Your task to perform on an android device: change the clock style Image 0: 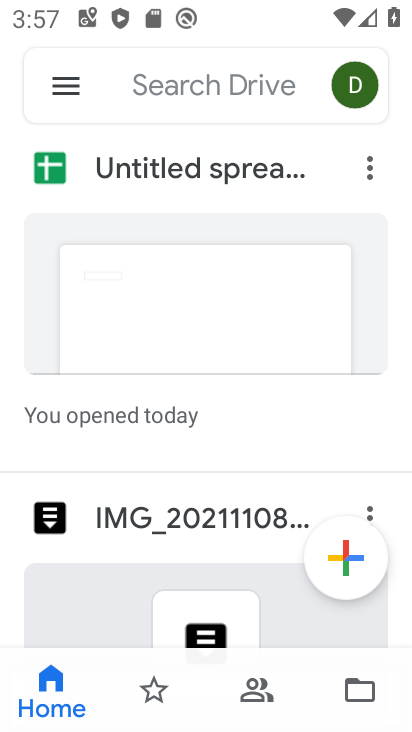
Step 0: press home button
Your task to perform on an android device: change the clock style Image 1: 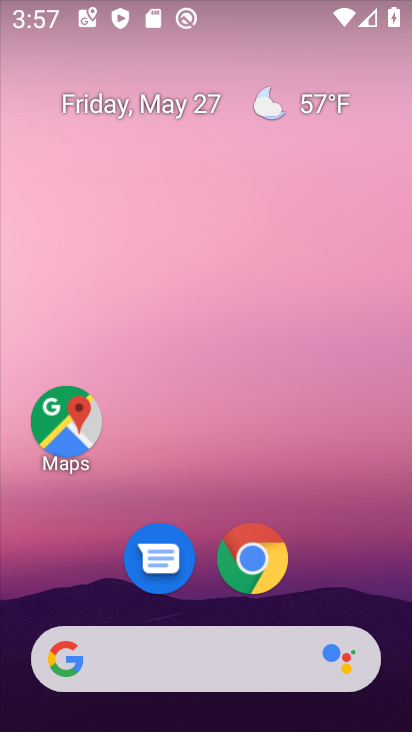
Step 1: drag from (361, 580) to (224, 1)
Your task to perform on an android device: change the clock style Image 2: 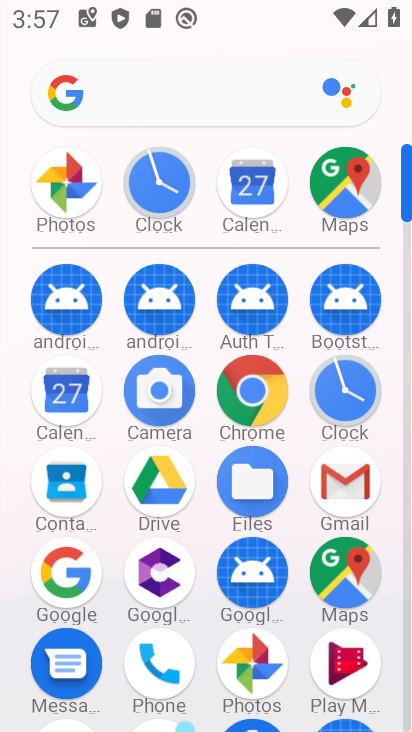
Step 2: click (162, 184)
Your task to perform on an android device: change the clock style Image 3: 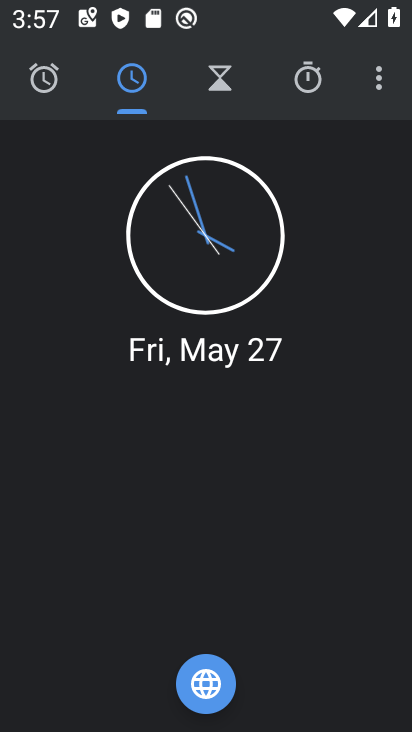
Step 3: click (330, 94)
Your task to perform on an android device: change the clock style Image 4: 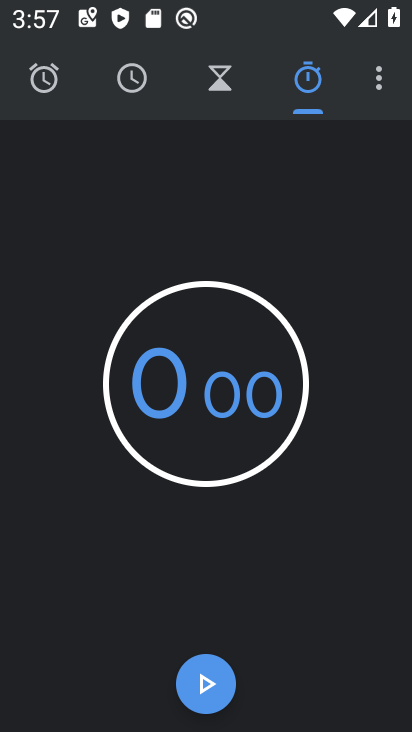
Step 4: click (370, 93)
Your task to perform on an android device: change the clock style Image 5: 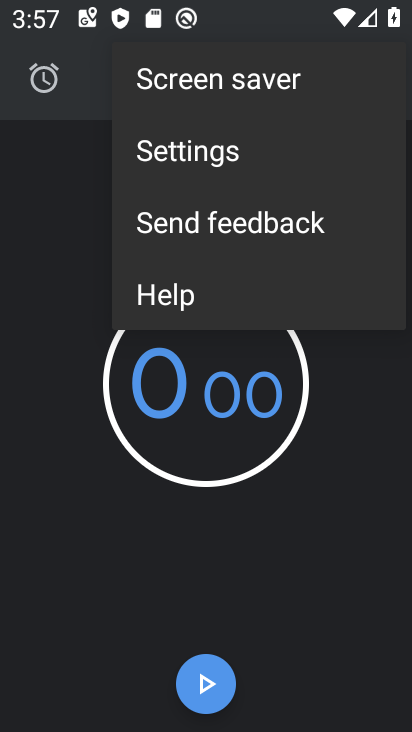
Step 5: click (265, 162)
Your task to perform on an android device: change the clock style Image 6: 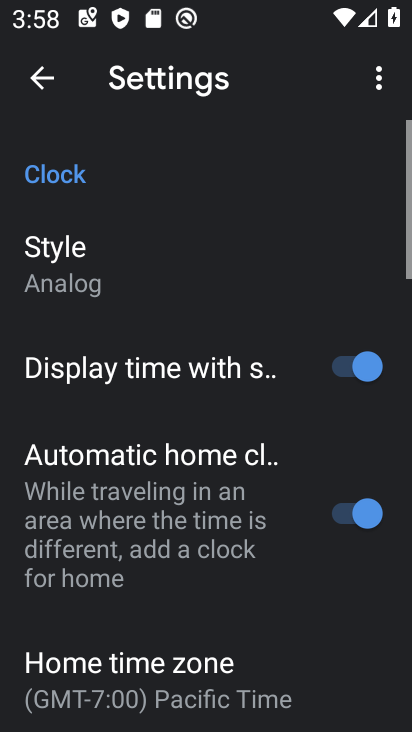
Step 6: click (157, 235)
Your task to perform on an android device: change the clock style Image 7: 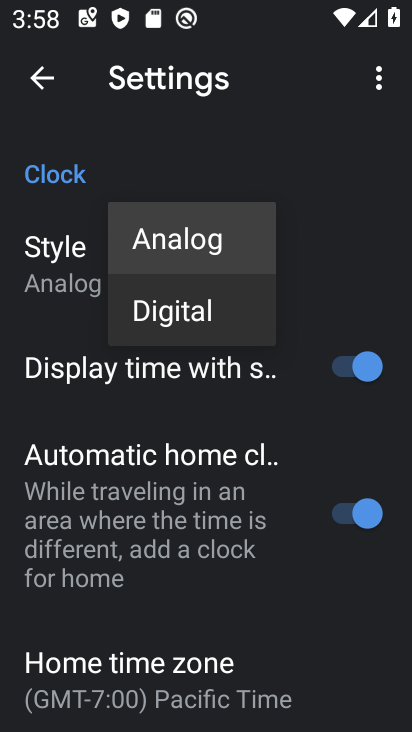
Step 7: click (160, 310)
Your task to perform on an android device: change the clock style Image 8: 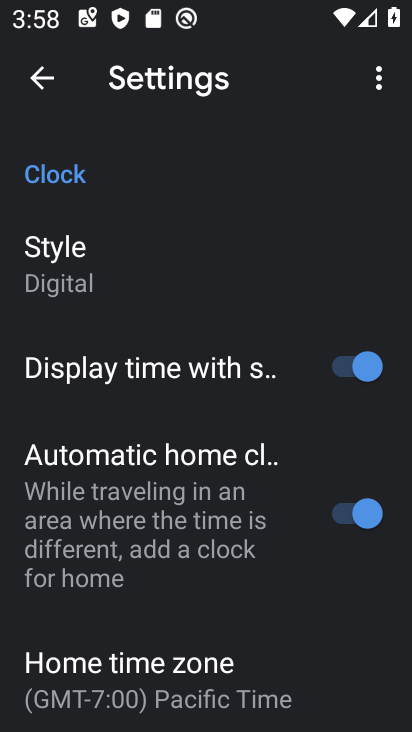
Step 8: task complete